Your task to perform on an android device: Go to Google maps Image 0: 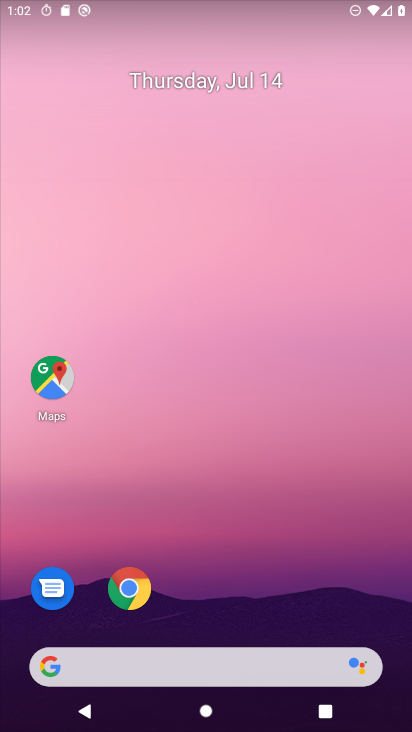
Step 0: drag from (143, 658) to (307, 71)
Your task to perform on an android device: Go to Google maps Image 1: 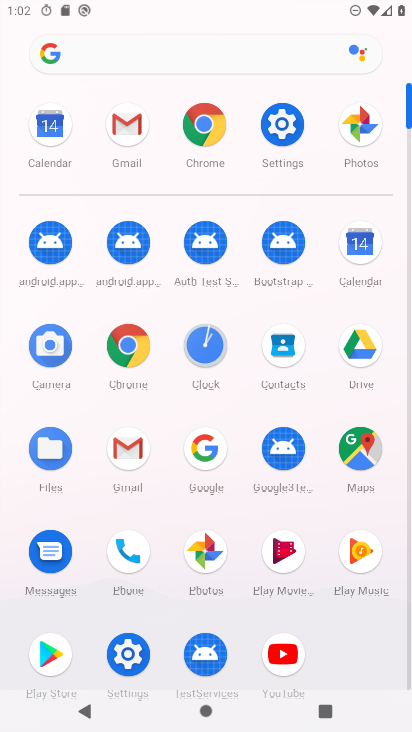
Step 1: click (369, 439)
Your task to perform on an android device: Go to Google maps Image 2: 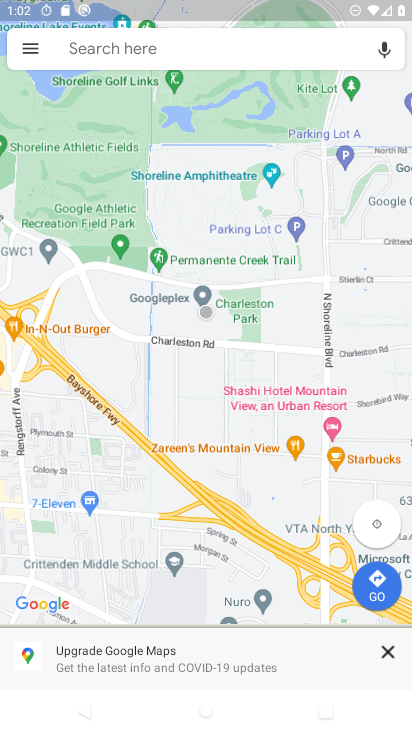
Step 2: task complete